Your task to perform on an android device: Do I have any events tomorrow? Image 0: 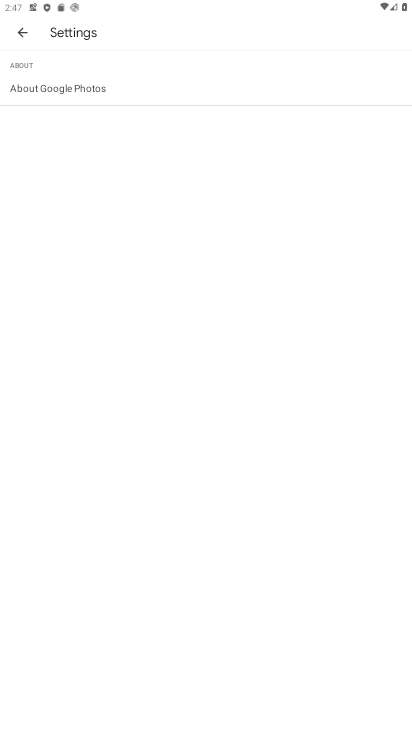
Step 0: press home button
Your task to perform on an android device: Do I have any events tomorrow? Image 1: 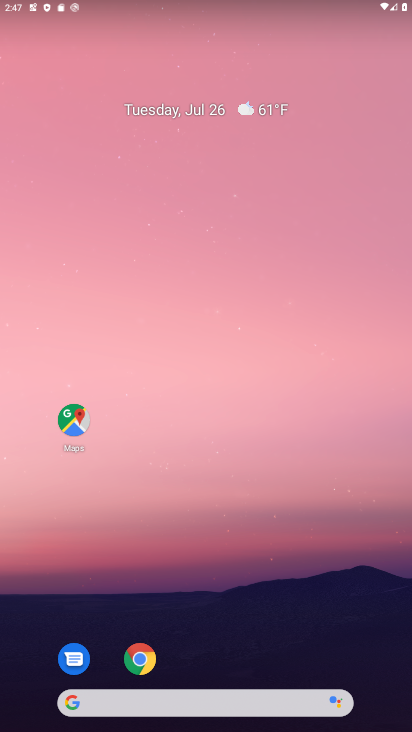
Step 1: drag from (187, 663) to (160, 18)
Your task to perform on an android device: Do I have any events tomorrow? Image 2: 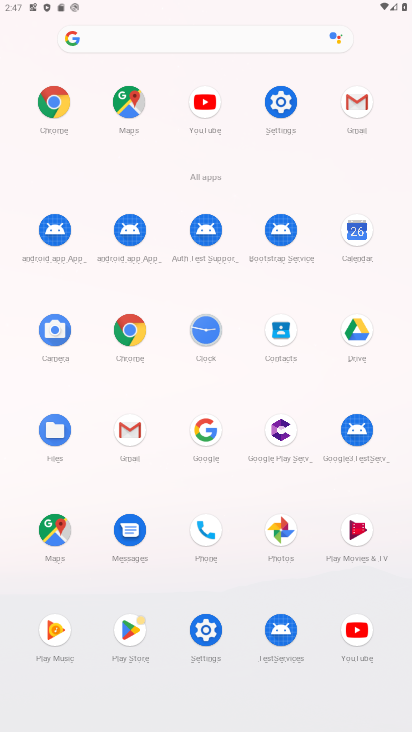
Step 2: click (356, 252)
Your task to perform on an android device: Do I have any events tomorrow? Image 3: 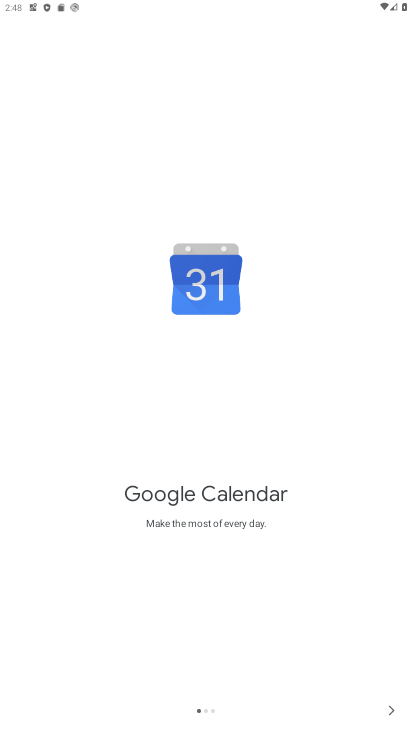
Step 3: click (393, 715)
Your task to perform on an android device: Do I have any events tomorrow? Image 4: 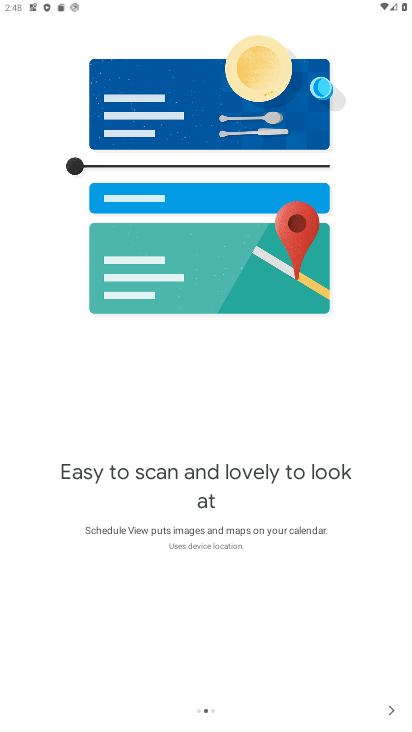
Step 4: click (393, 715)
Your task to perform on an android device: Do I have any events tomorrow? Image 5: 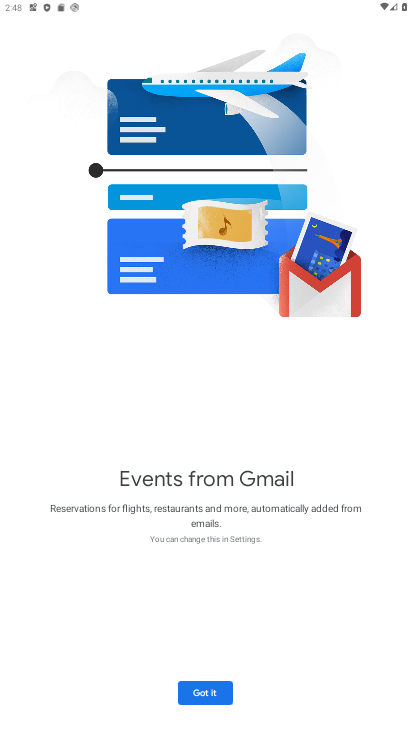
Step 5: click (195, 682)
Your task to perform on an android device: Do I have any events tomorrow? Image 6: 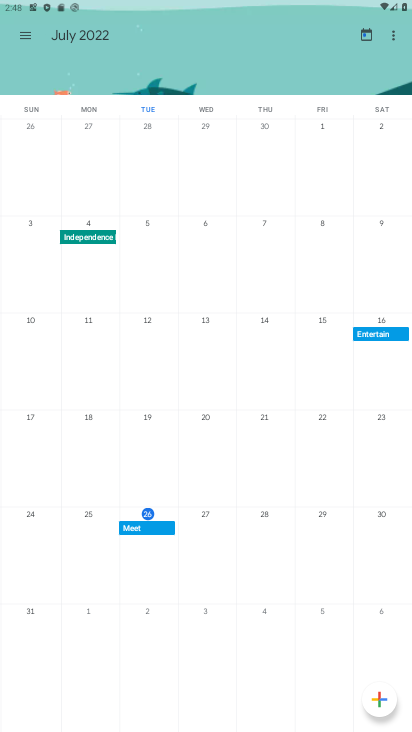
Step 6: task complete